Your task to perform on an android device: Open accessibility settings Image 0: 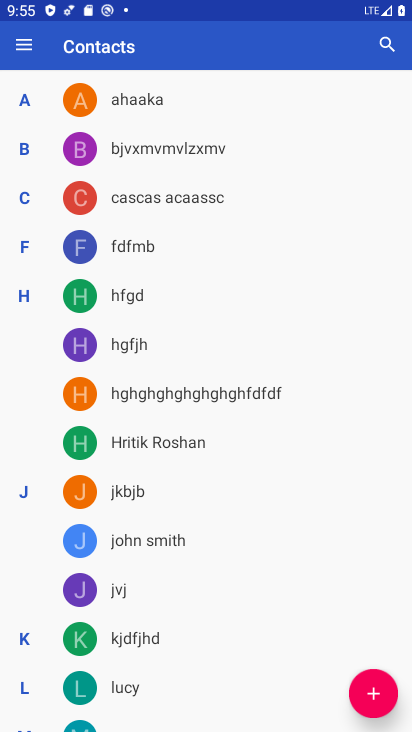
Step 0: press home button
Your task to perform on an android device: Open accessibility settings Image 1: 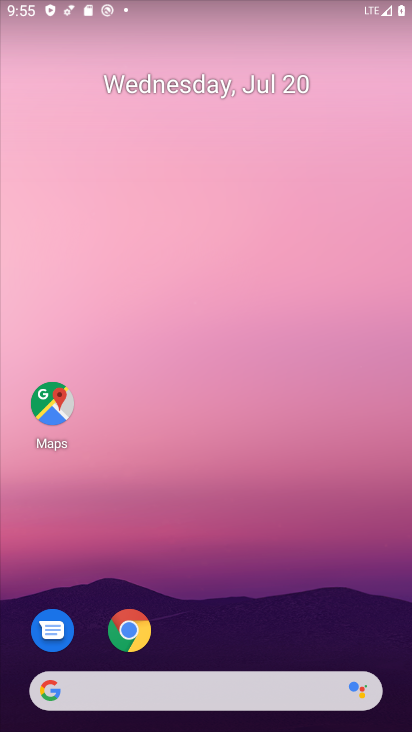
Step 1: drag from (274, 608) to (274, 20)
Your task to perform on an android device: Open accessibility settings Image 2: 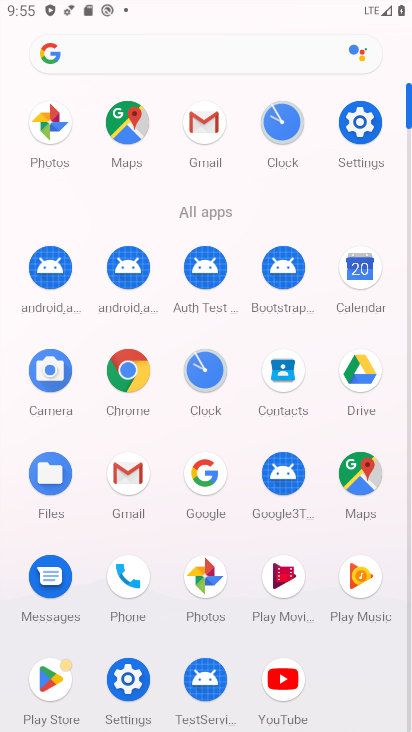
Step 2: click (361, 117)
Your task to perform on an android device: Open accessibility settings Image 3: 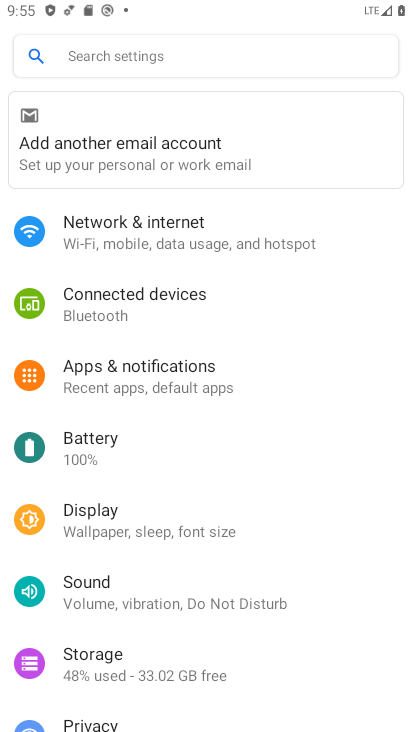
Step 3: drag from (233, 163) to (225, 61)
Your task to perform on an android device: Open accessibility settings Image 4: 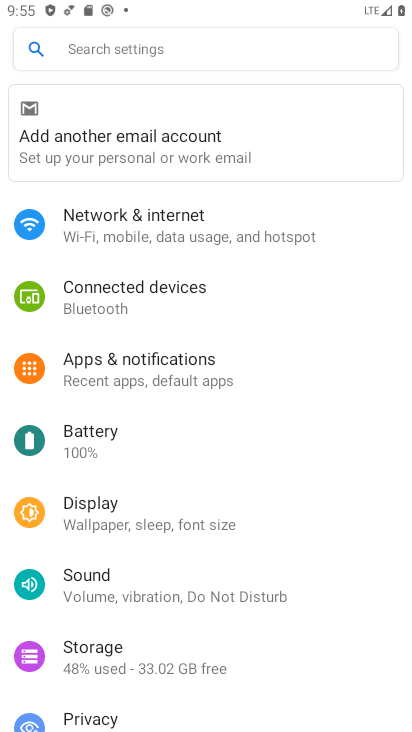
Step 4: drag from (205, 573) to (180, 170)
Your task to perform on an android device: Open accessibility settings Image 5: 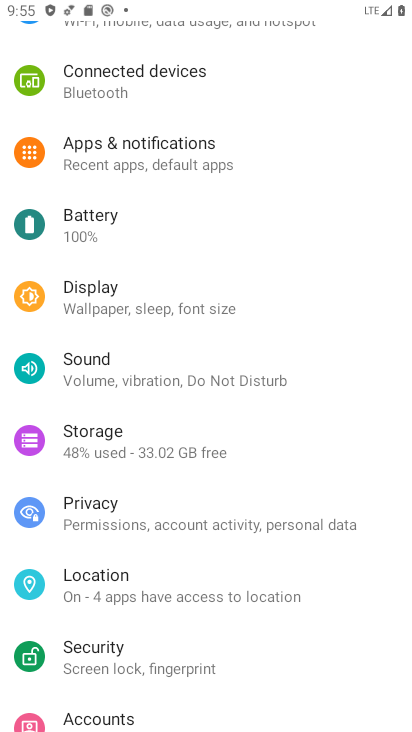
Step 5: drag from (170, 663) to (155, 235)
Your task to perform on an android device: Open accessibility settings Image 6: 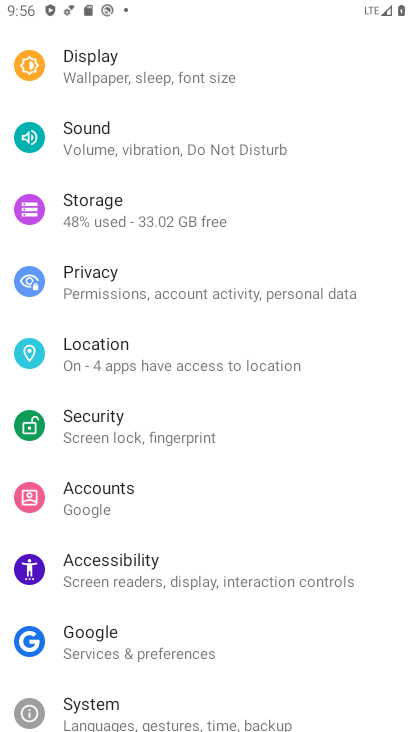
Step 6: click (192, 562)
Your task to perform on an android device: Open accessibility settings Image 7: 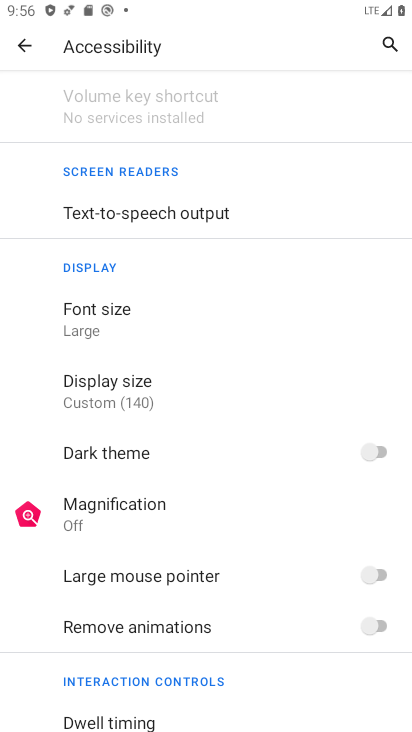
Step 7: task complete